Your task to perform on an android device: View the shopping cart on walmart. Search for logitech g903 on walmart, select the first entry, and add it to the cart. Image 0: 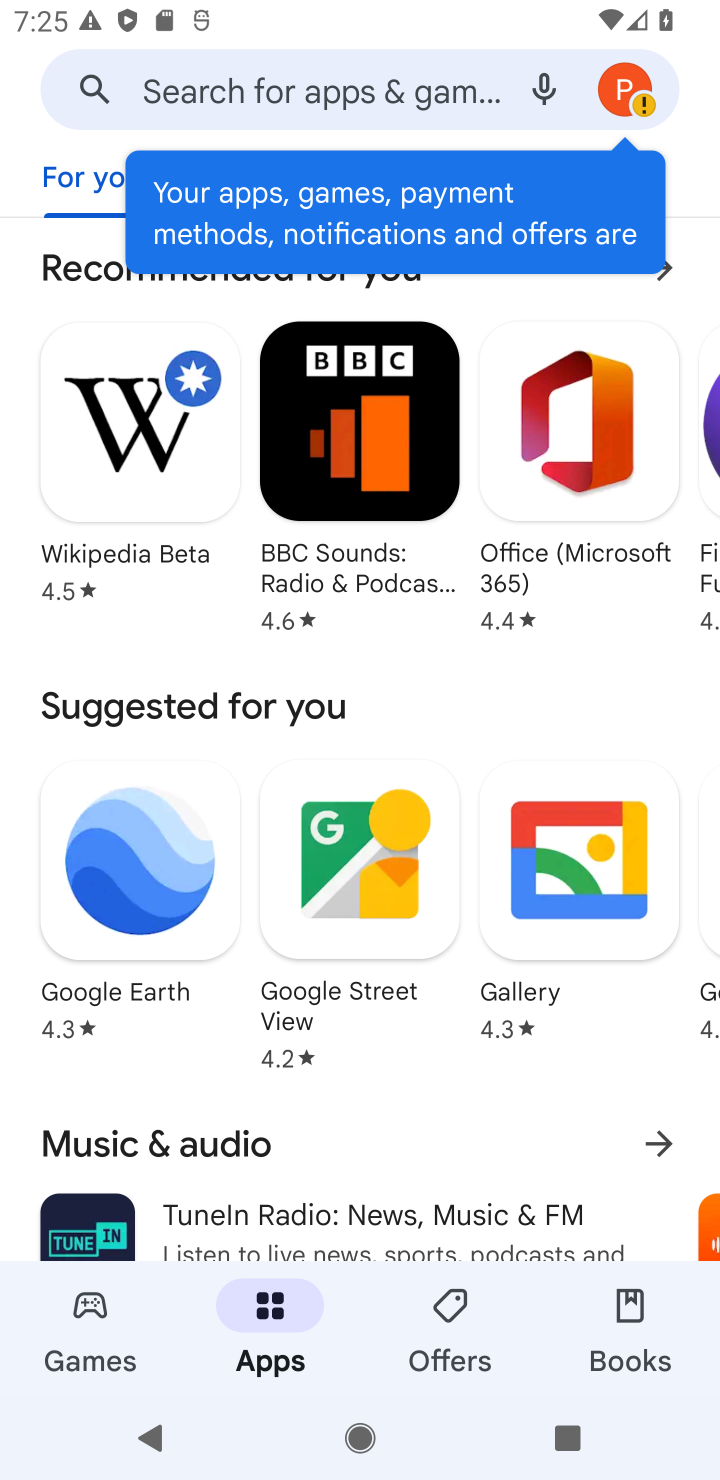
Step 0: task complete